Your task to perform on an android device: toggle data saver in the chrome app Image 0: 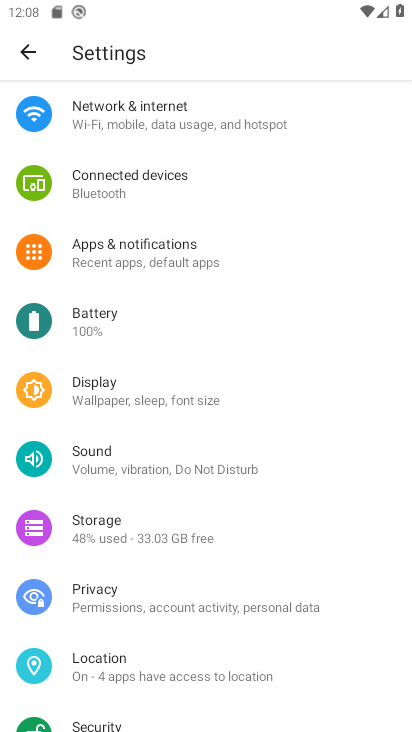
Step 0: press home button
Your task to perform on an android device: toggle data saver in the chrome app Image 1: 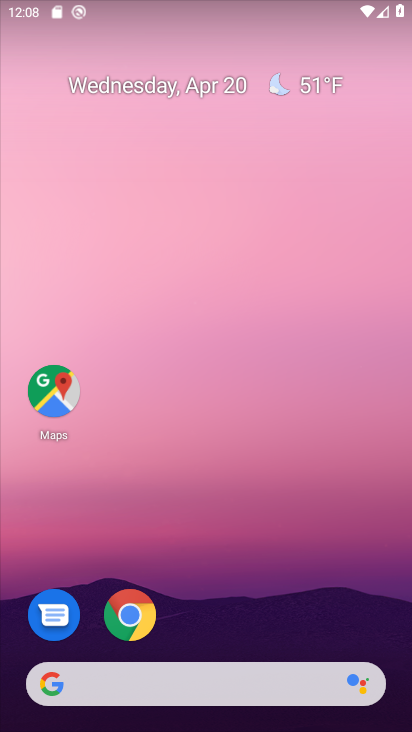
Step 1: click (141, 630)
Your task to perform on an android device: toggle data saver in the chrome app Image 2: 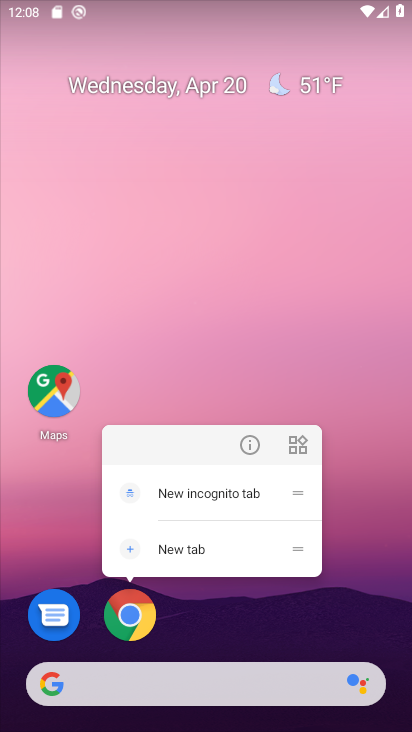
Step 2: click (141, 630)
Your task to perform on an android device: toggle data saver in the chrome app Image 3: 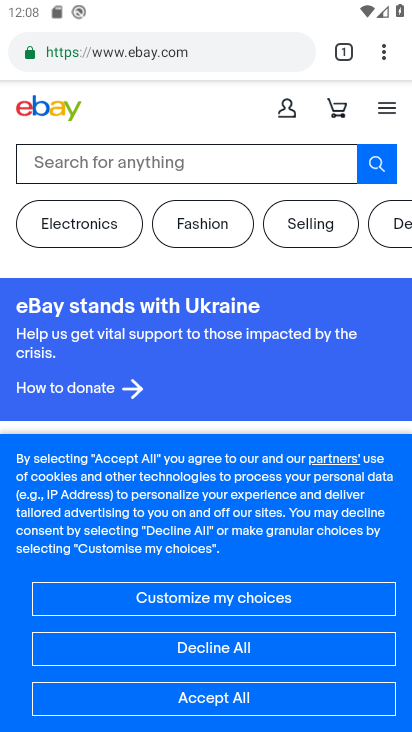
Step 3: click (387, 53)
Your task to perform on an android device: toggle data saver in the chrome app Image 4: 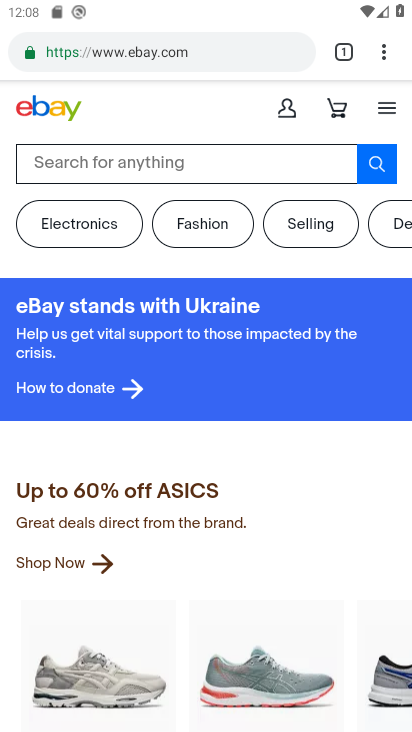
Step 4: click (382, 60)
Your task to perform on an android device: toggle data saver in the chrome app Image 5: 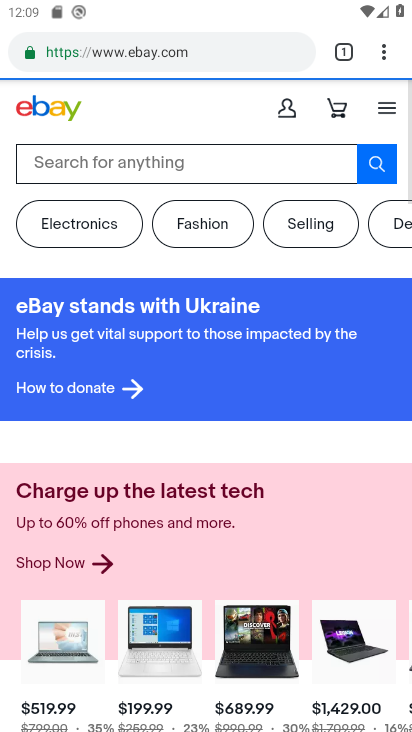
Step 5: drag from (378, 63) to (208, 626)
Your task to perform on an android device: toggle data saver in the chrome app Image 6: 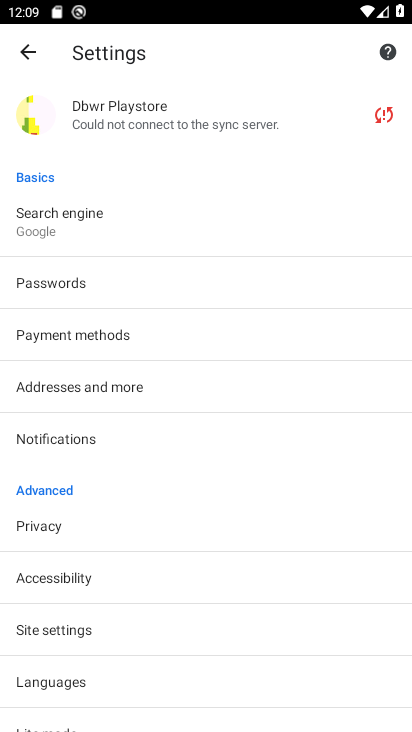
Step 6: drag from (164, 698) to (147, 335)
Your task to perform on an android device: toggle data saver in the chrome app Image 7: 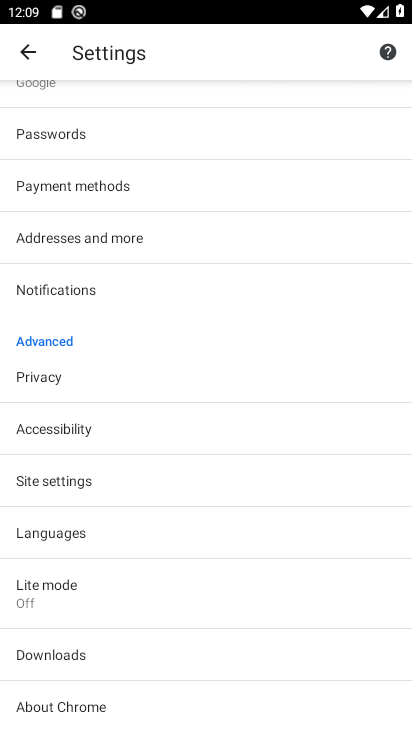
Step 7: click (127, 590)
Your task to perform on an android device: toggle data saver in the chrome app Image 8: 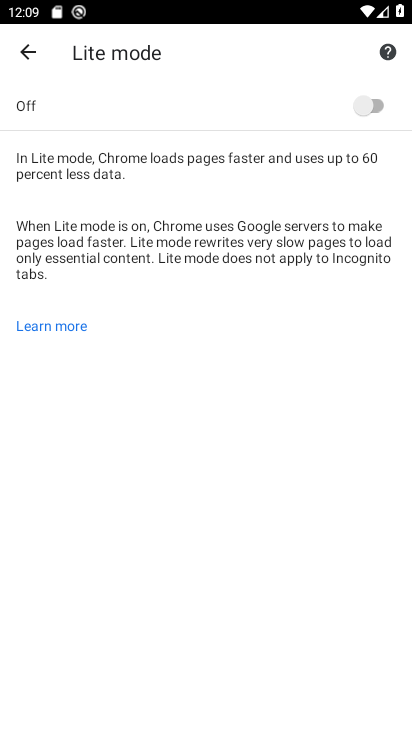
Step 8: click (370, 103)
Your task to perform on an android device: toggle data saver in the chrome app Image 9: 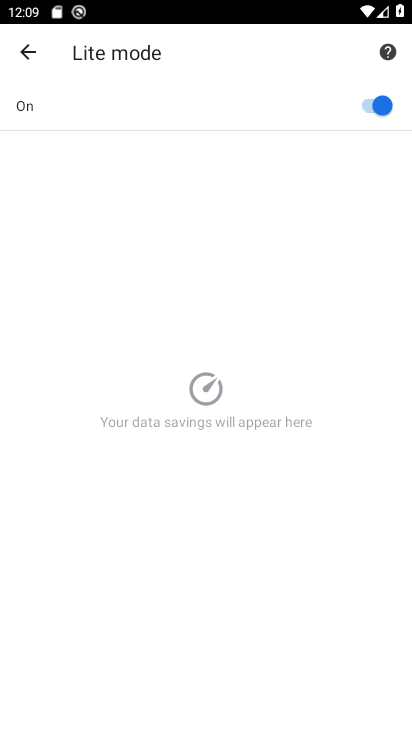
Step 9: task complete